Your task to perform on an android device: star an email in the gmail app Image 0: 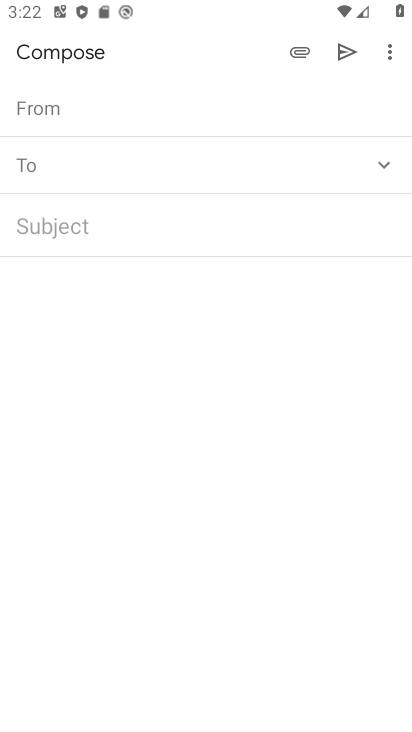
Step 0: drag from (209, 700) to (119, 260)
Your task to perform on an android device: star an email in the gmail app Image 1: 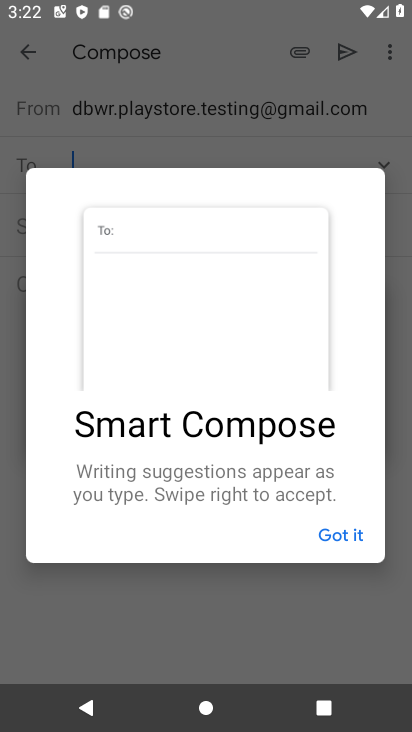
Step 1: click (346, 531)
Your task to perform on an android device: star an email in the gmail app Image 2: 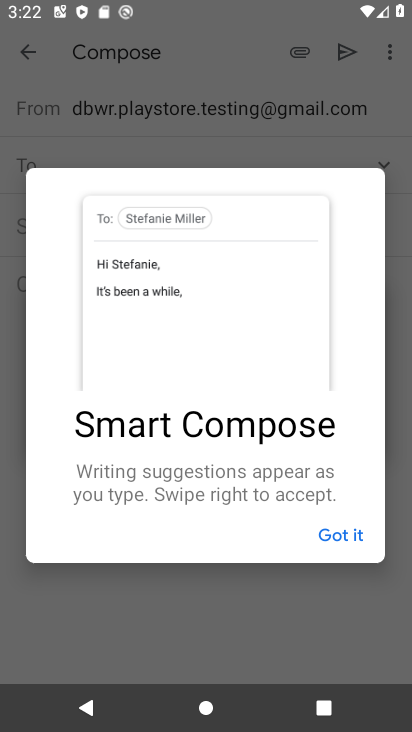
Step 2: click (346, 531)
Your task to perform on an android device: star an email in the gmail app Image 3: 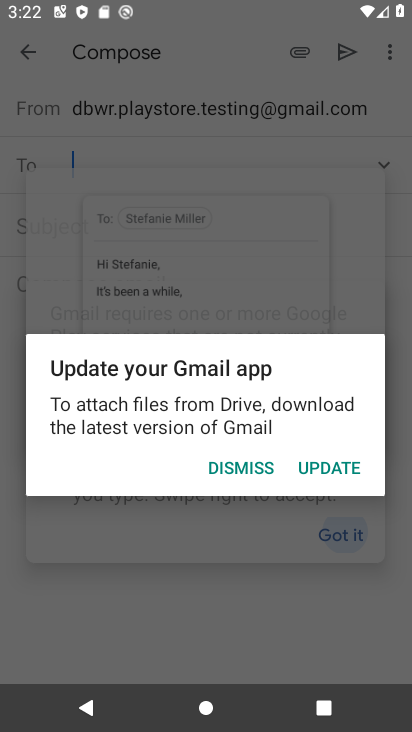
Step 3: click (346, 531)
Your task to perform on an android device: star an email in the gmail app Image 4: 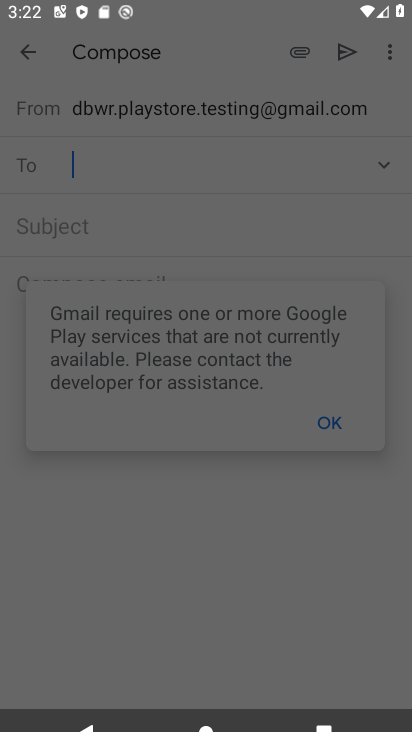
Step 4: click (347, 531)
Your task to perform on an android device: star an email in the gmail app Image 5: 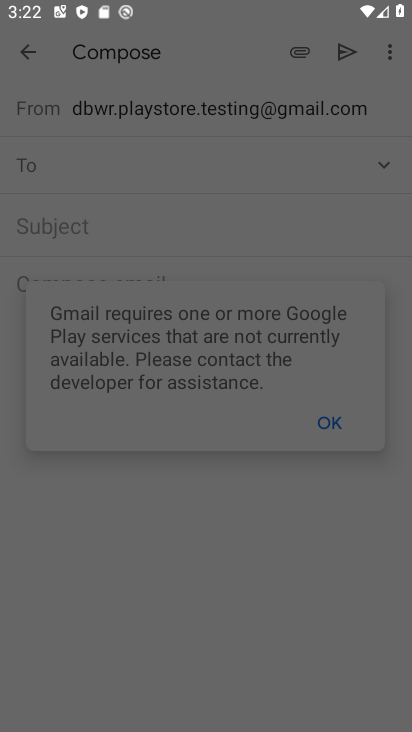
Step 5: click (325, 414)
Your task to perform on an android device: star an email in the gmail app Image 6: 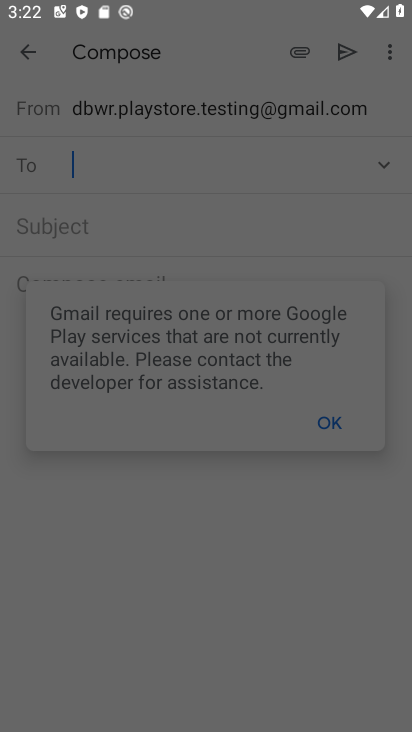
Step 6: click (326, 414)
Your task to perform on an android device: star an email in the gmail app Image 7: 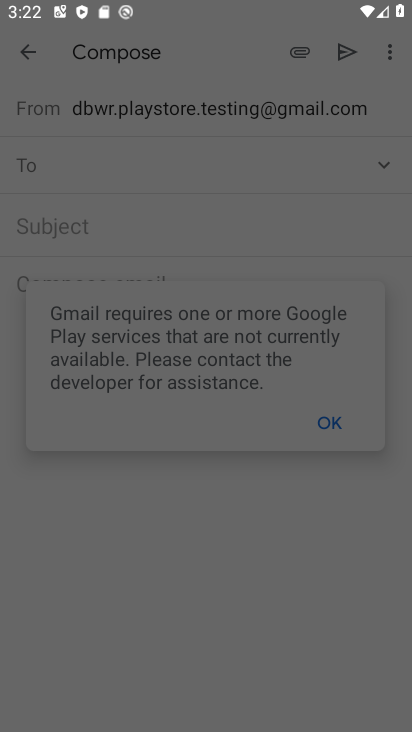
Step 7: click (326, 414)
Your task to perform on an android device: star an email in the gmail app Image 8: 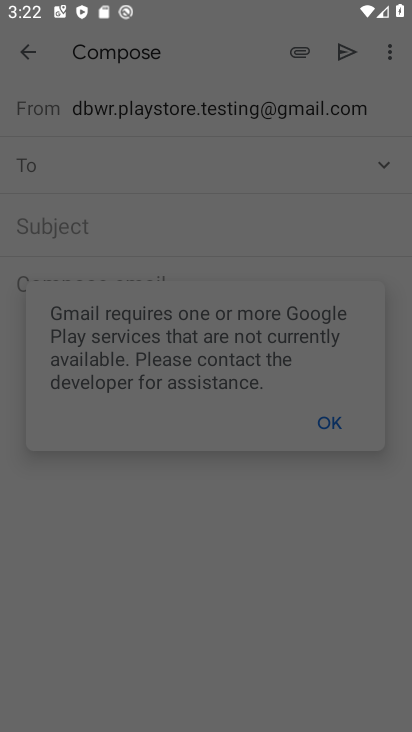
Step 8: click (25, 56)
Your task to perform on an android device: star an email in the gmail app Image 9: 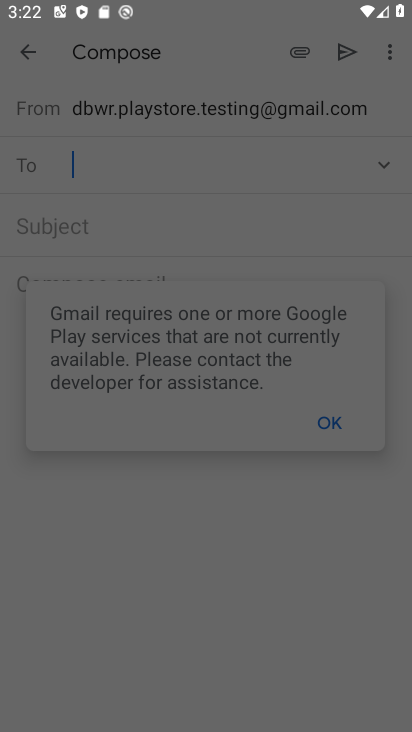
Step 9: click (22, 48)
Your task to perform on an android device: star an email in the gmail app Image 10: 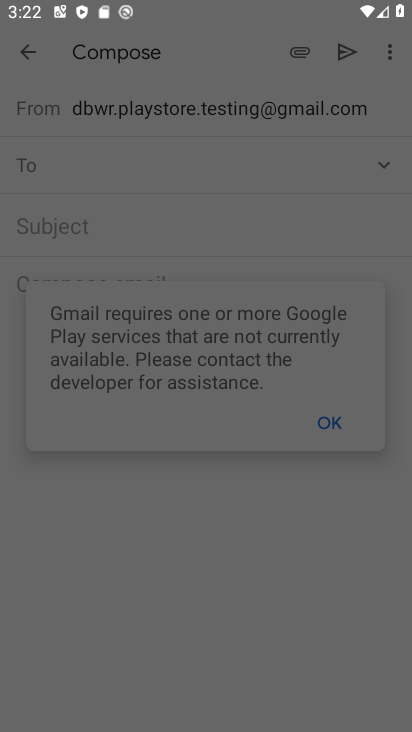
Step 10: click (23, 48)
Your task to perform on an android device: star an email in the gmail app Image 11: 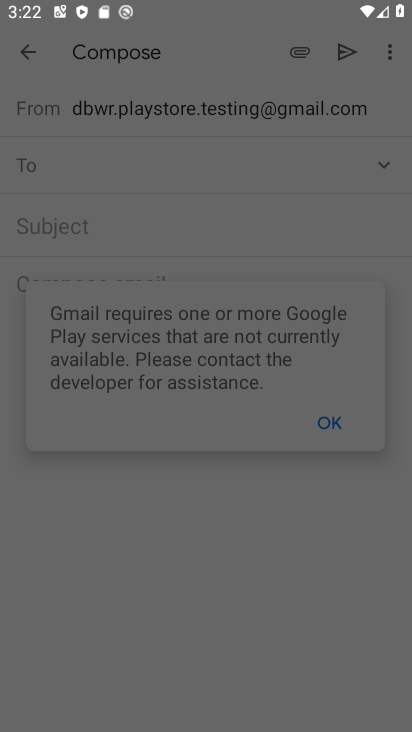
Step 11: click (23, 48)
Your task to perform on an android device: star an email in the gmail app Image 12: 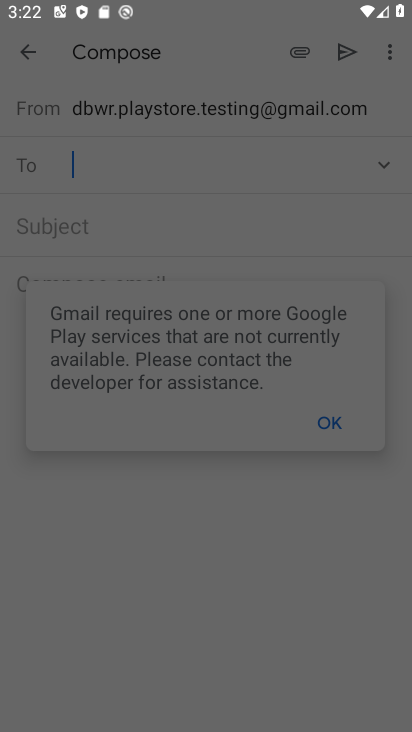
Step 12: click (24, 47)
Your task to perform on an android device: star an email in the gmail app Image 13: 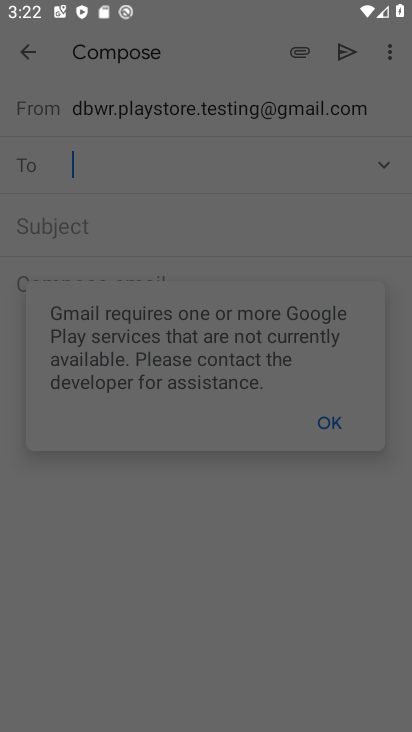
Step 13: press back button
Your task to perform on an android device: star an email in the gmail app Image 14: 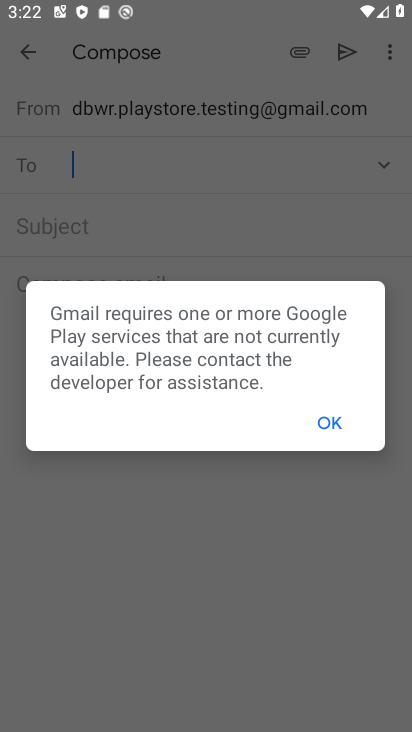
Step 14: press back button
Your task to perform on an android device: star an email in the gmail app Image 15: 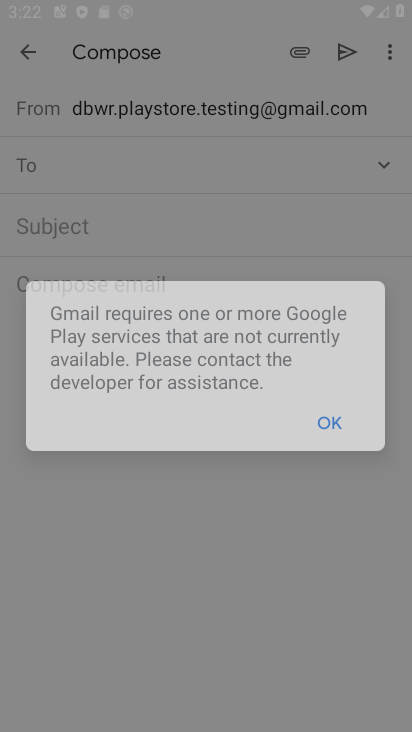
Step 15: press back button
Your task to perform on an android device: star an email in the gmail app Image 16: 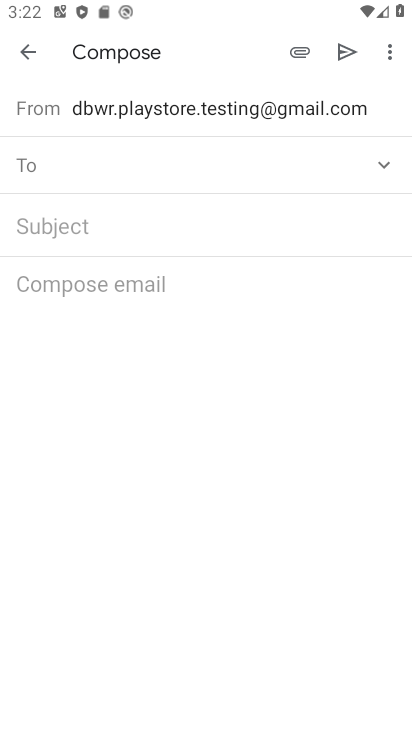
Step 16: press back button
Your task to perform on an android device: star an email in the gmail app Image 17: 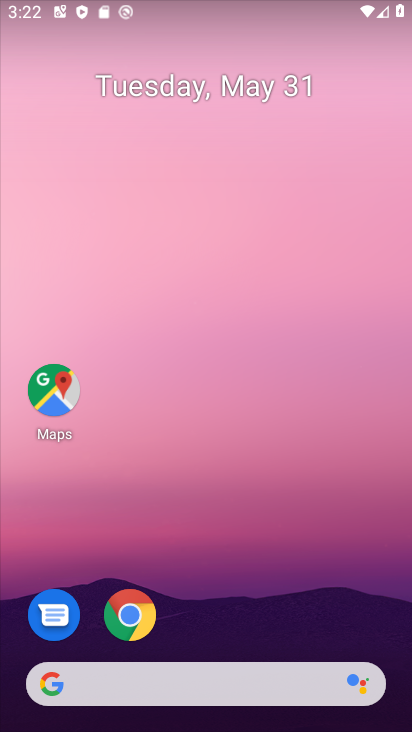
Step 17: drag from (254, 638) to (201, 121)
Your task to perform on an android device: star an email in the gmail app Image 18: 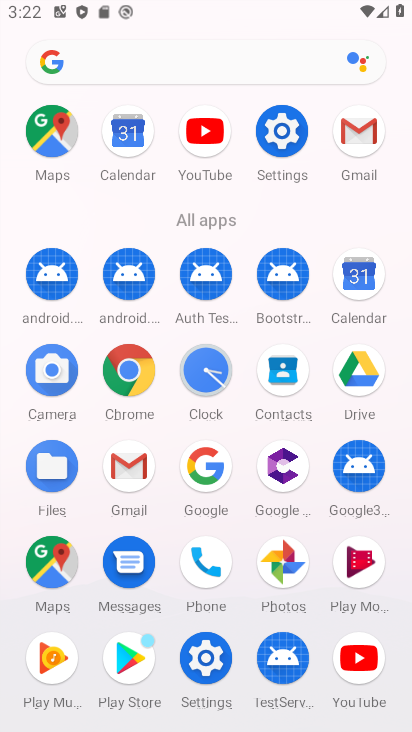
Step 18: click (144, 474)
Your task to perform on an android device: star an email in the gmail app Image 19: 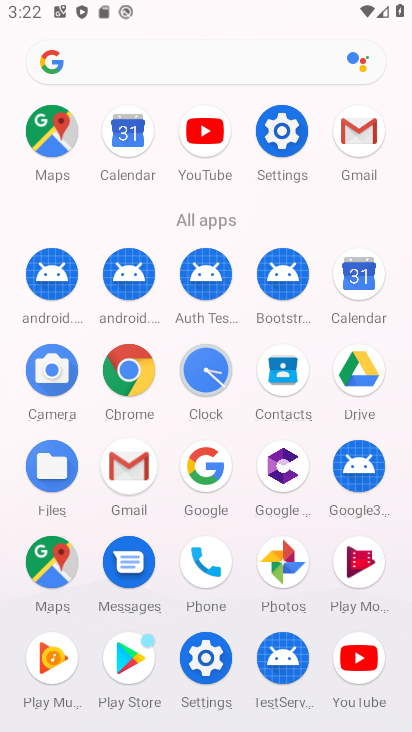
Step 19: click (126, 458)
Your task to perform on an android device: star an email in the gmail app Image 20: 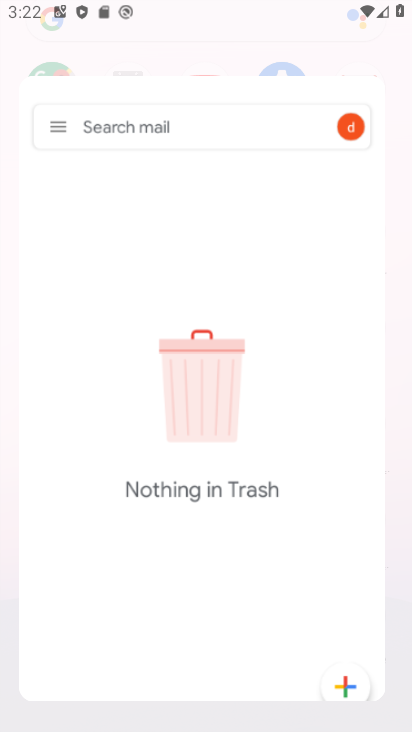
Step 20: click (126, 458)
Your task to perform on an android device: star an email in the gmail app Image 21: 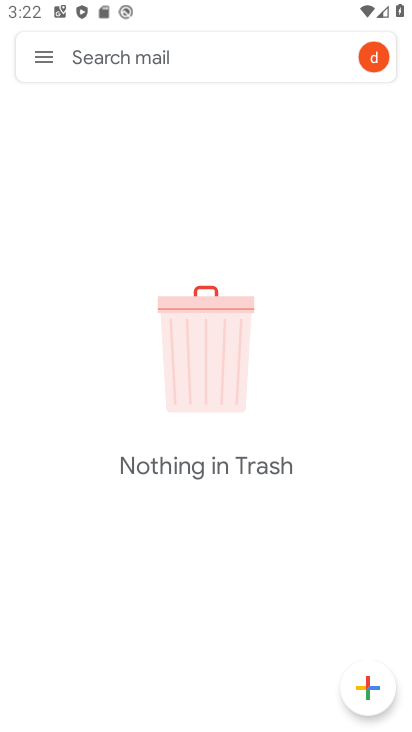
Step 21: click (126, 458)
Your task to perform on an android device: star an email in the gmail app Image 22: 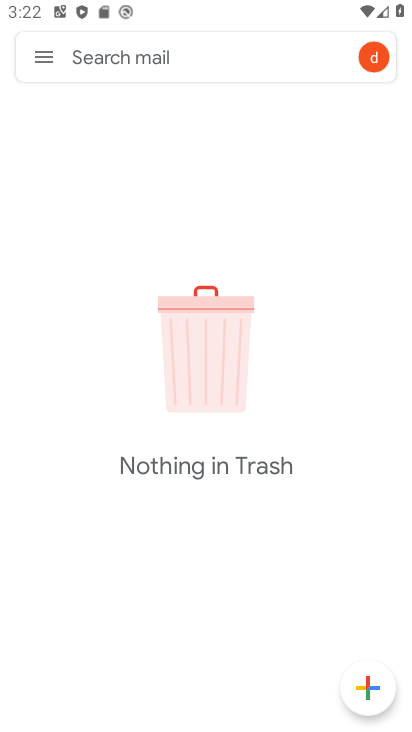
Step 22: click (46, 58)
Your task to perform on an android device: star an email in the gmail app Image 23: 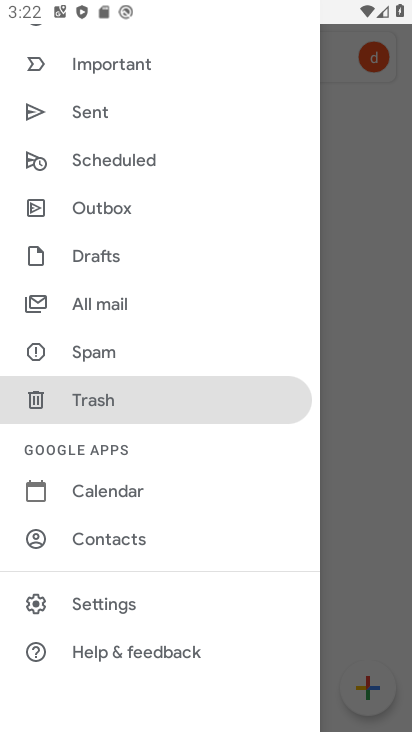
Step 23: click (96, 303)
Your task to perform on an android device: star an email in the gmail app Image 24: 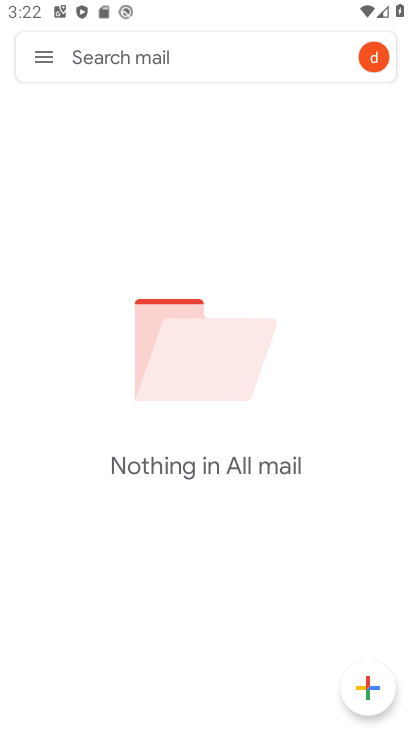
Step 24: task complete